Your task to perform on an android device: change alarm snooze length Image 0: 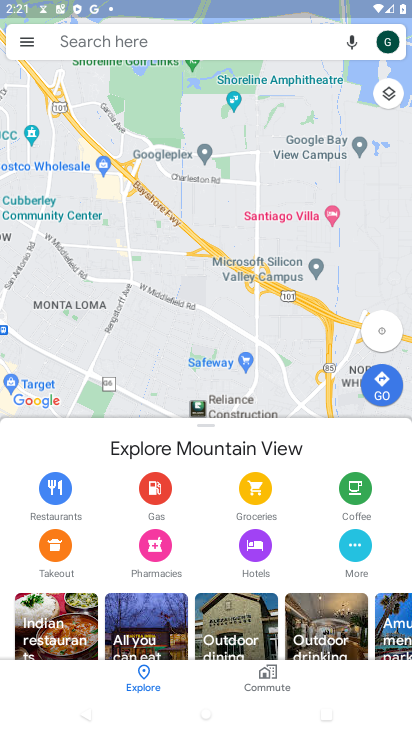
Step 0: press home button
Your task to perform on an android device: change alarm snooze length Image 1: 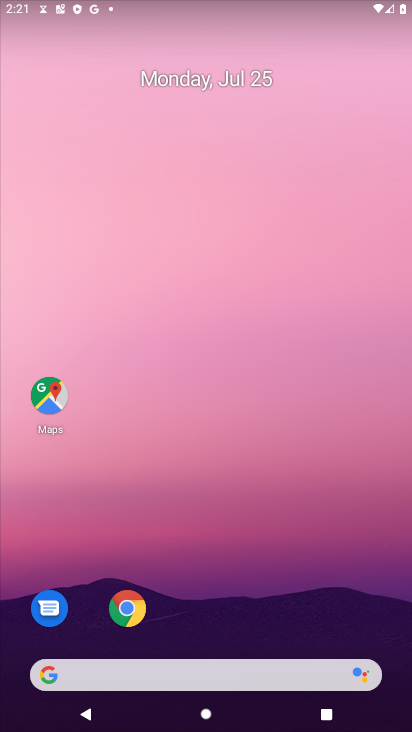
Step 1: drag from (178, 678) to (186, 5)
Your task to perform on an android device: change alarm snooze length Image 2: 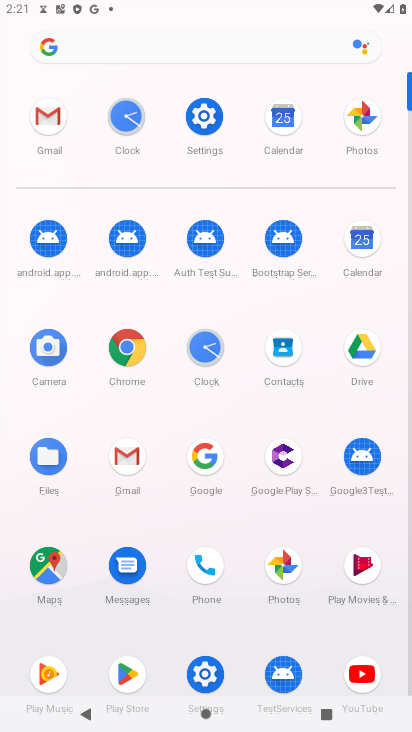
Step 2: click (203, 344)
Your task to perform on an android device: change alarm snooze length Image 3: 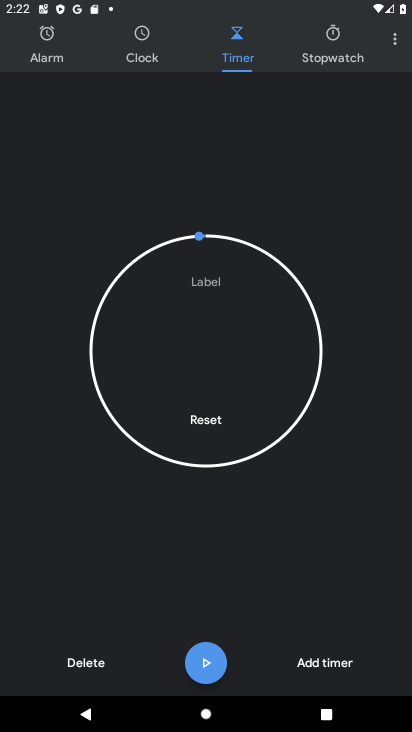
Step 3: click (398, 40)
Your task to perform on an android device: change alarm snooze length Image 4: 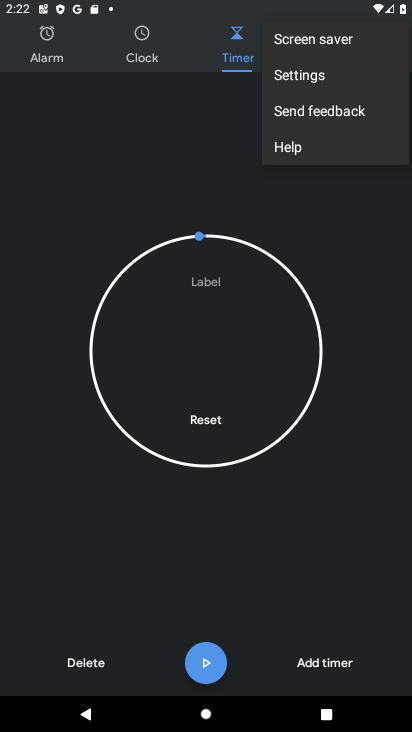
Step 4: click (310, 72)
Your task to perform on an android device: change alarm snooze length Image 5: 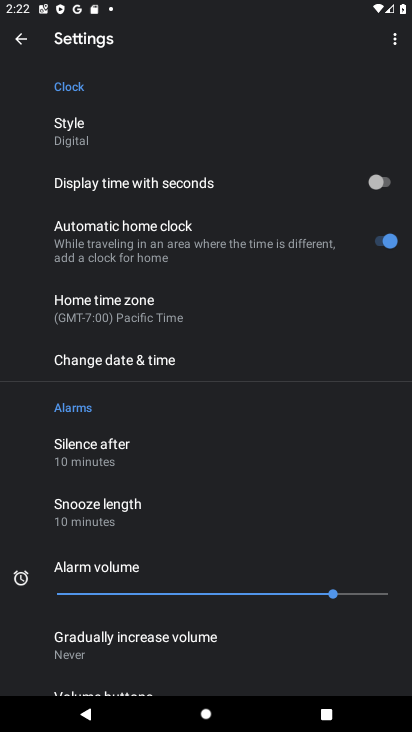
Step 5: click (83, 512)
Your task to perform on an android device: change alarm snooze length Image 6: 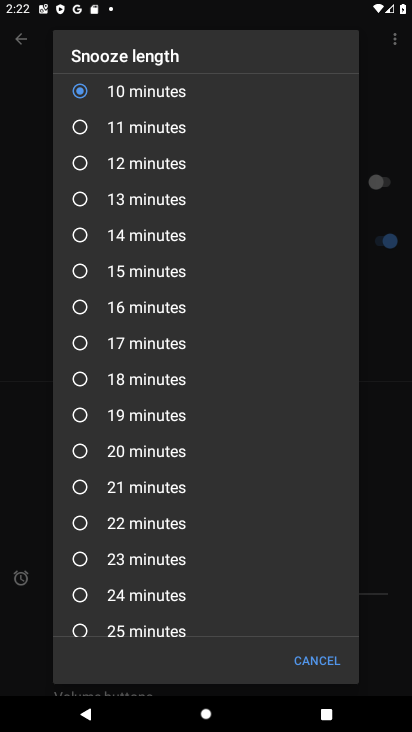
Step 6: drag from (147, 441) to (249, 315)
Your task to perform on an android device: change alarm snooze length Image 7: 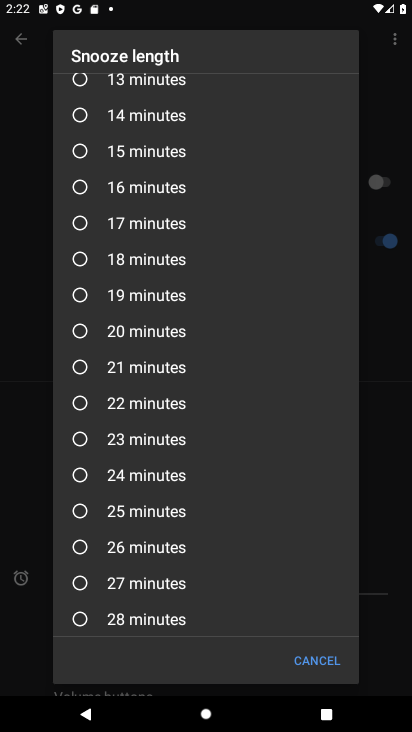
Step 7: click (86, 438)
Your task to perform on an android device: change alarm snooze length Image 8: 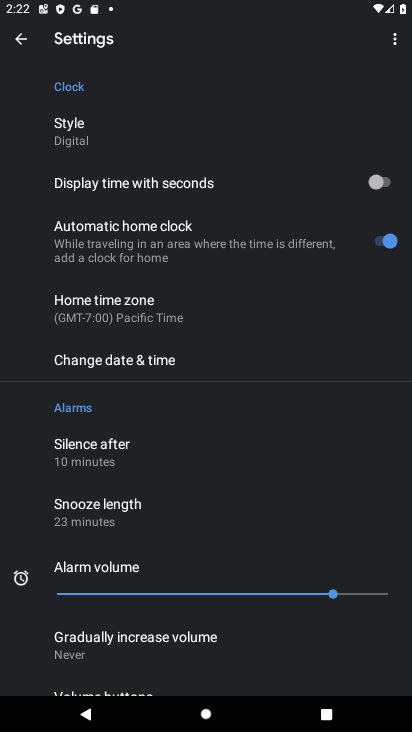
Step 8: task complete